Your task to perform on an android device: Show the shopping cart on amazon. Image 0: 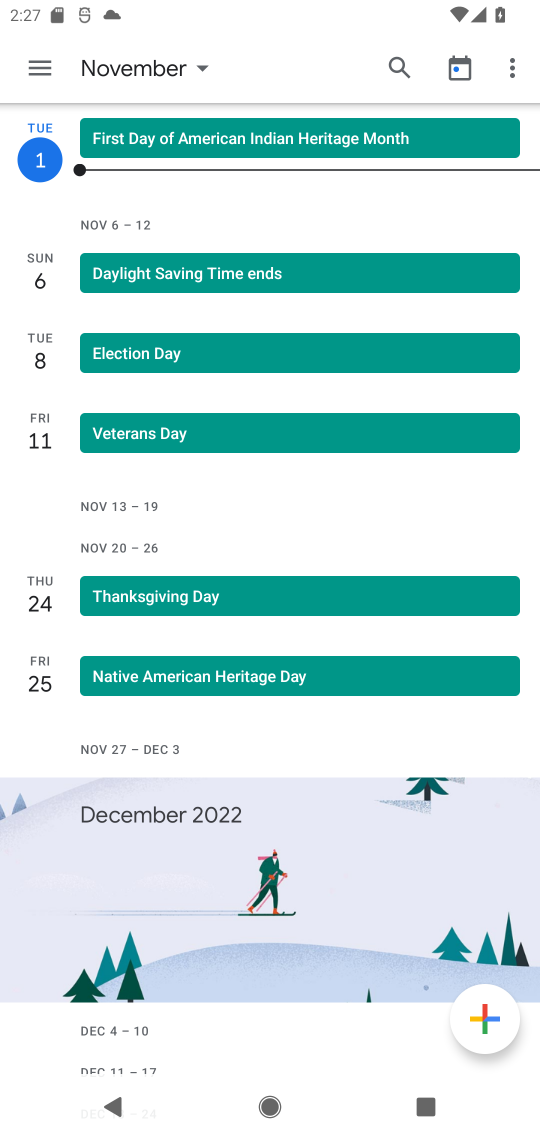
Step 0: press home button
Your task to perform on an android device: Show the shopping cart on amazon. Image 1: 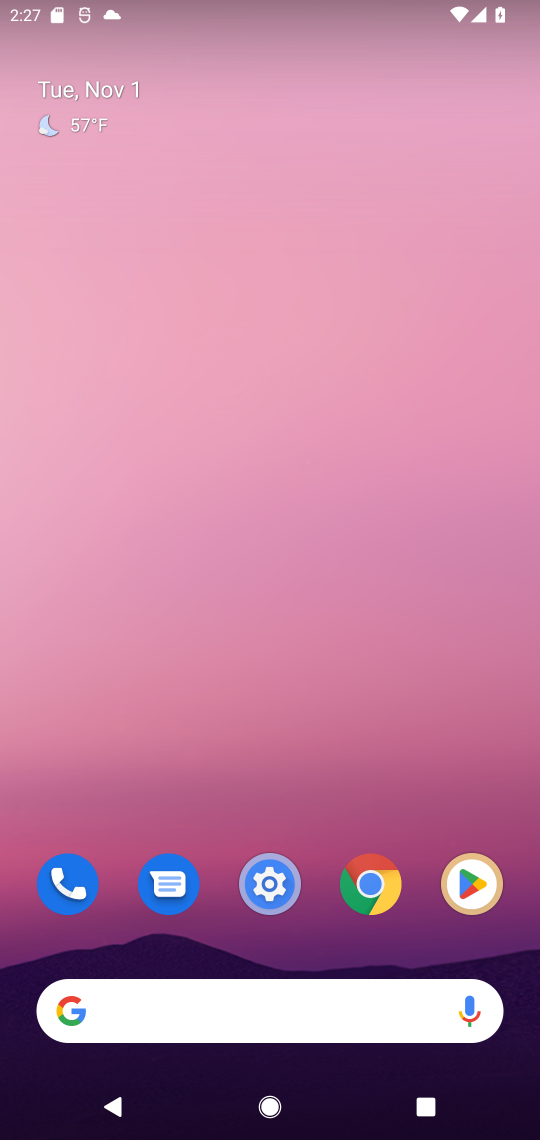
Step 1: click (123, 1003)
Your task to perform on an android device: Show the shopping cart on amazon. Image 2: 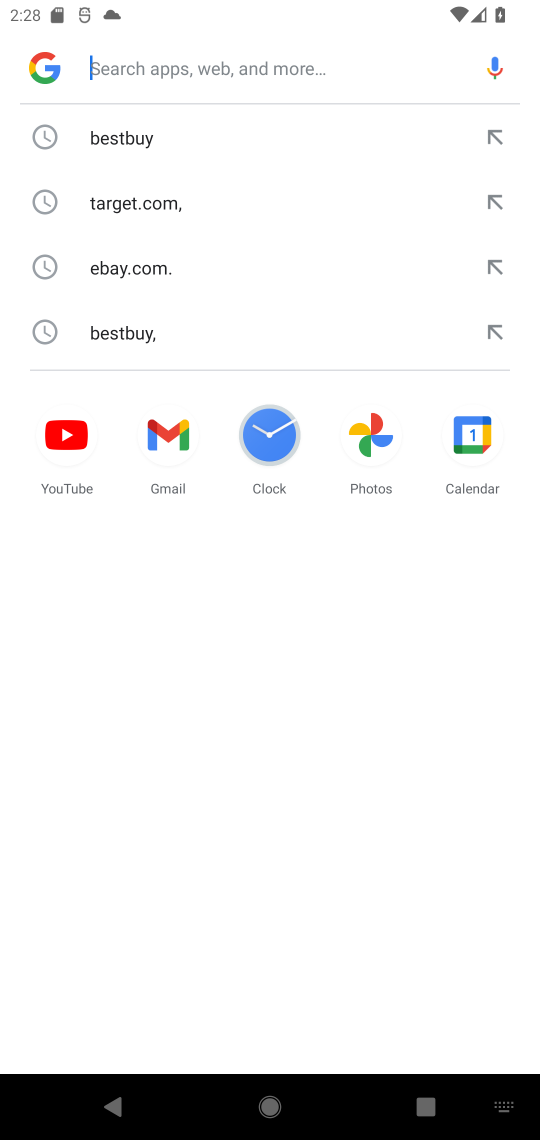
Step 2: type "amazon."
Your task to perform on an android device: Show the shopping cart on amazon. Image 3: 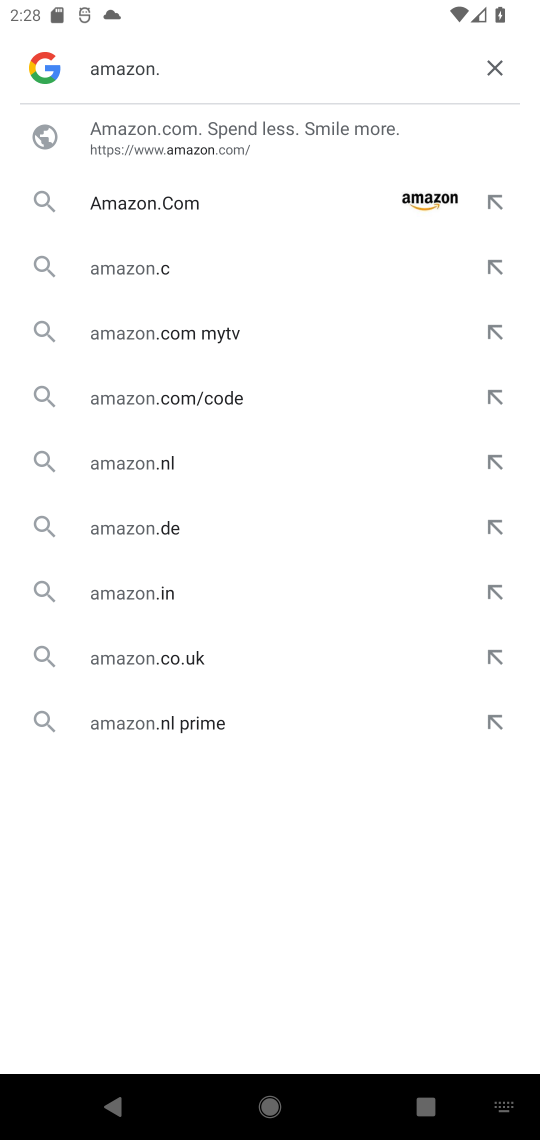
Step 3: press enter
Your task to perform on an android device: Show the shopping cart on amazon. Image 4: 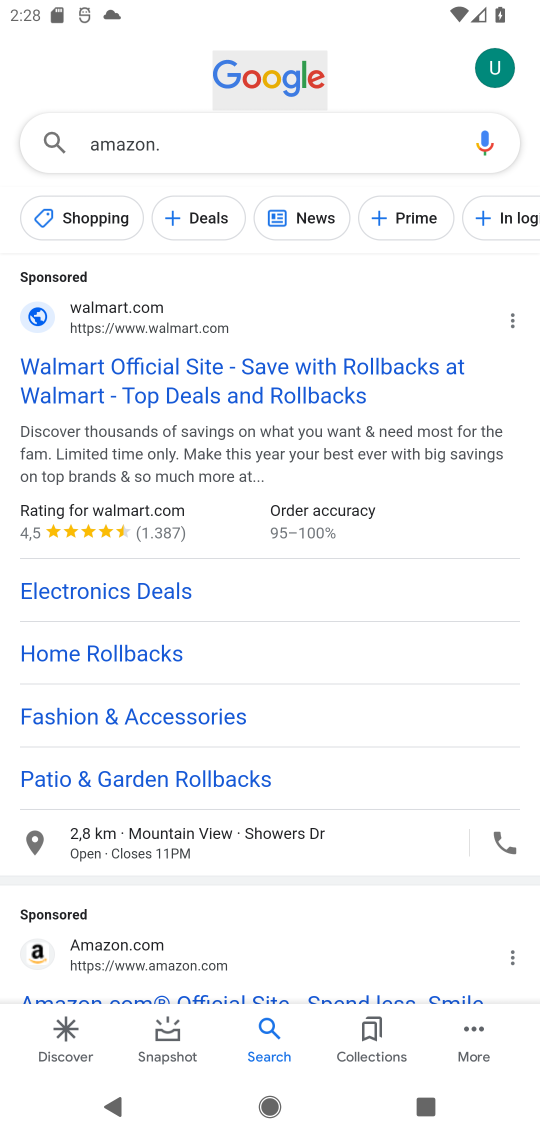
Step 4: drag from (288, 914) to (307, 496)
Your task to perform on an android device: Show the shopping cart on amazon. Image 5: 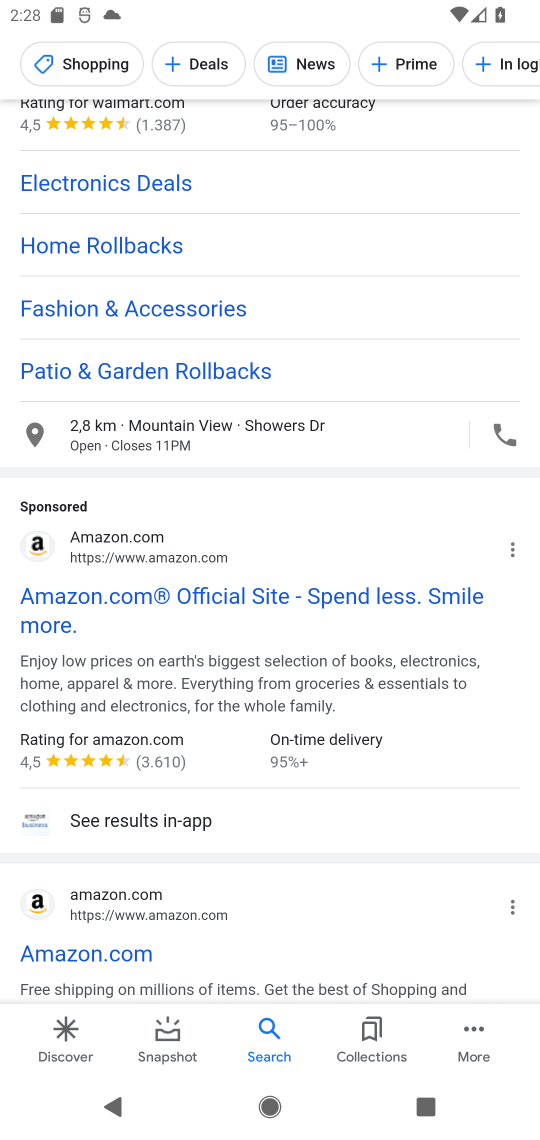
Step 5: click (190, 590)
Your task to perform on an android device: Show the shopping cart on amazon. Image 6: 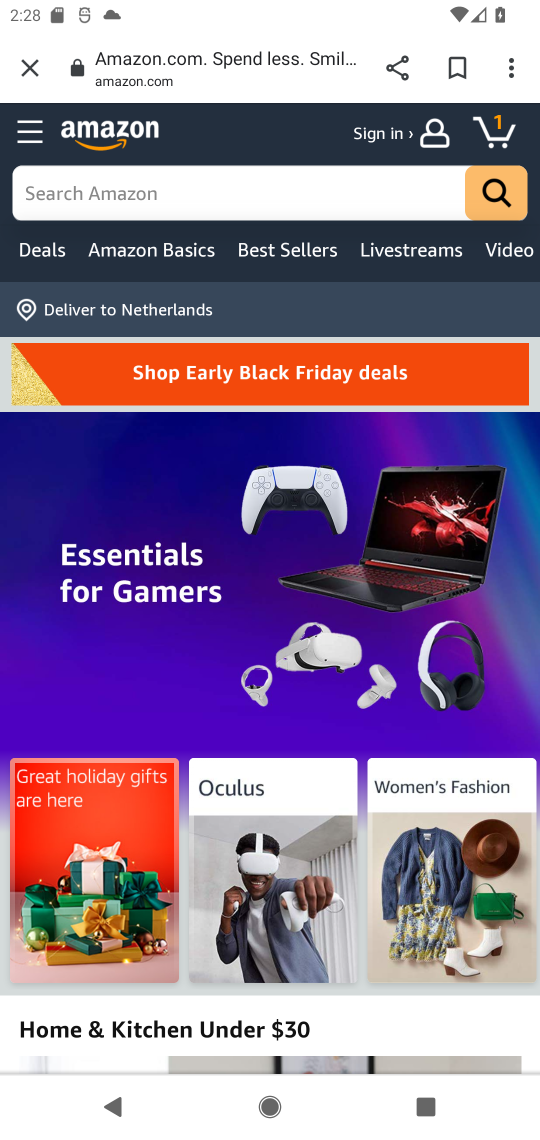
Step 6: click (494, 136)
Your task to perform on an android device: Show the shopping cart on amazon. Image 7: 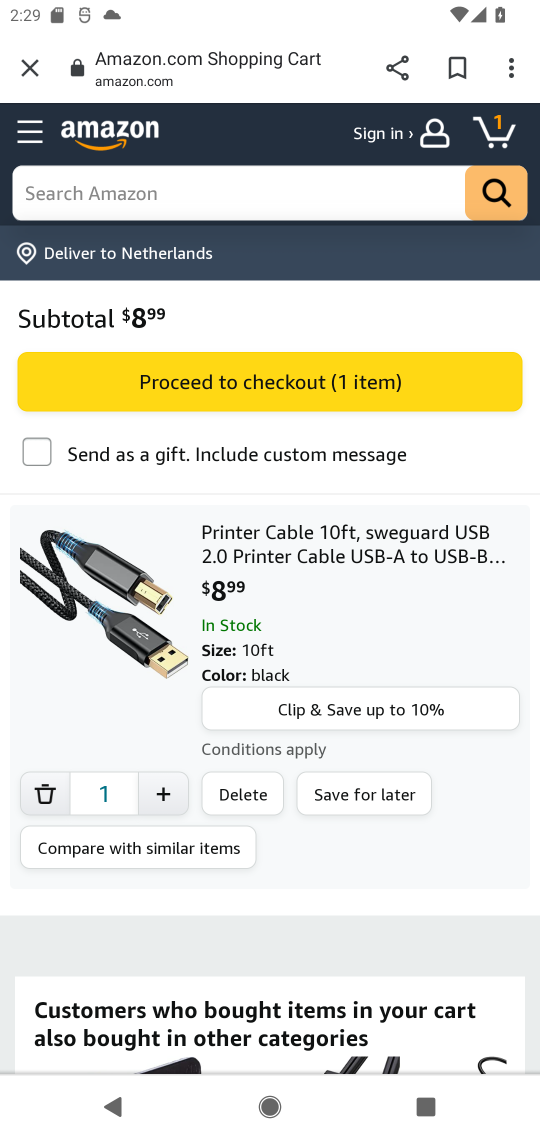
Step 7: task complete